Your task to perform on an android device: Search for "logitech g903" on target.com, select the first entry, add it to the cart, then select checkout. Image 0: 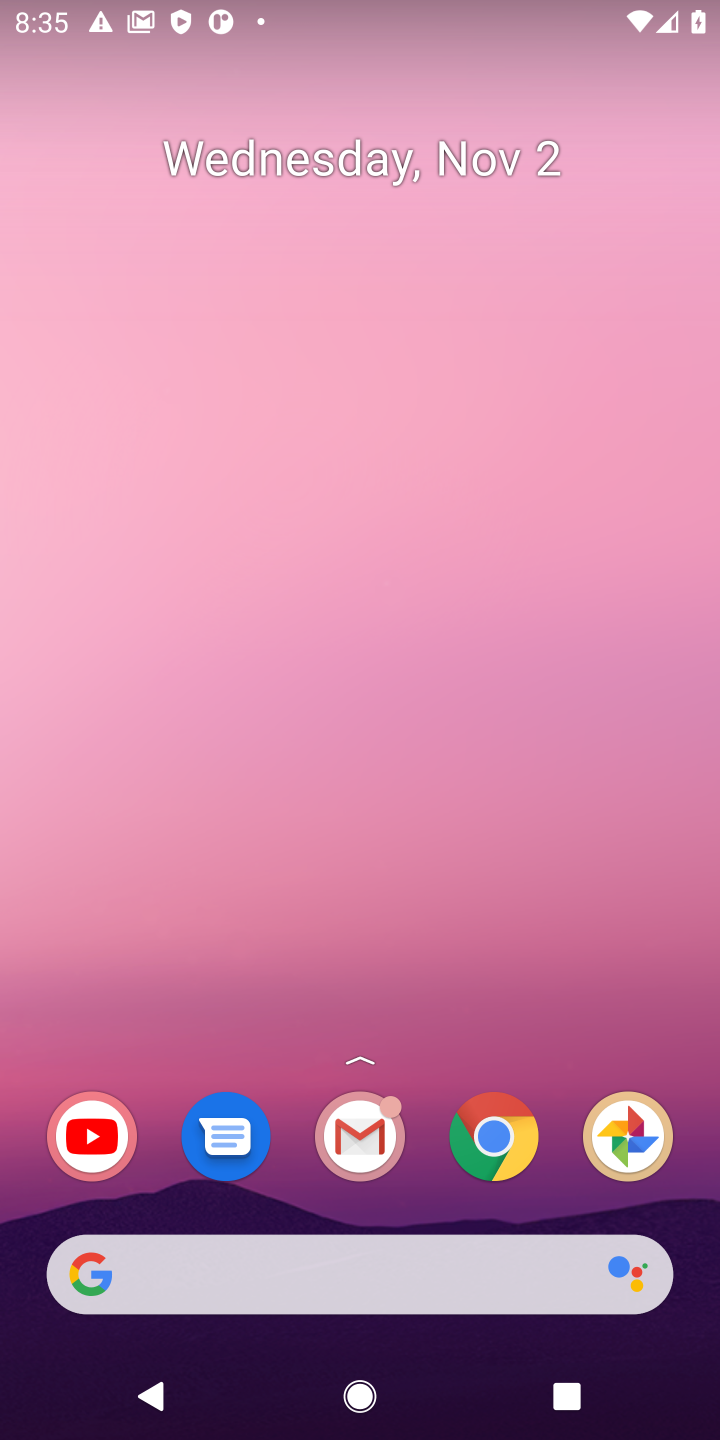
Step 0: drag from (315, 550) to (104, 35)
Your task to perform on an android device: Search for "logitech g903" on target.com, select the first entry, add it to the cart, then select checkout. Image 1: 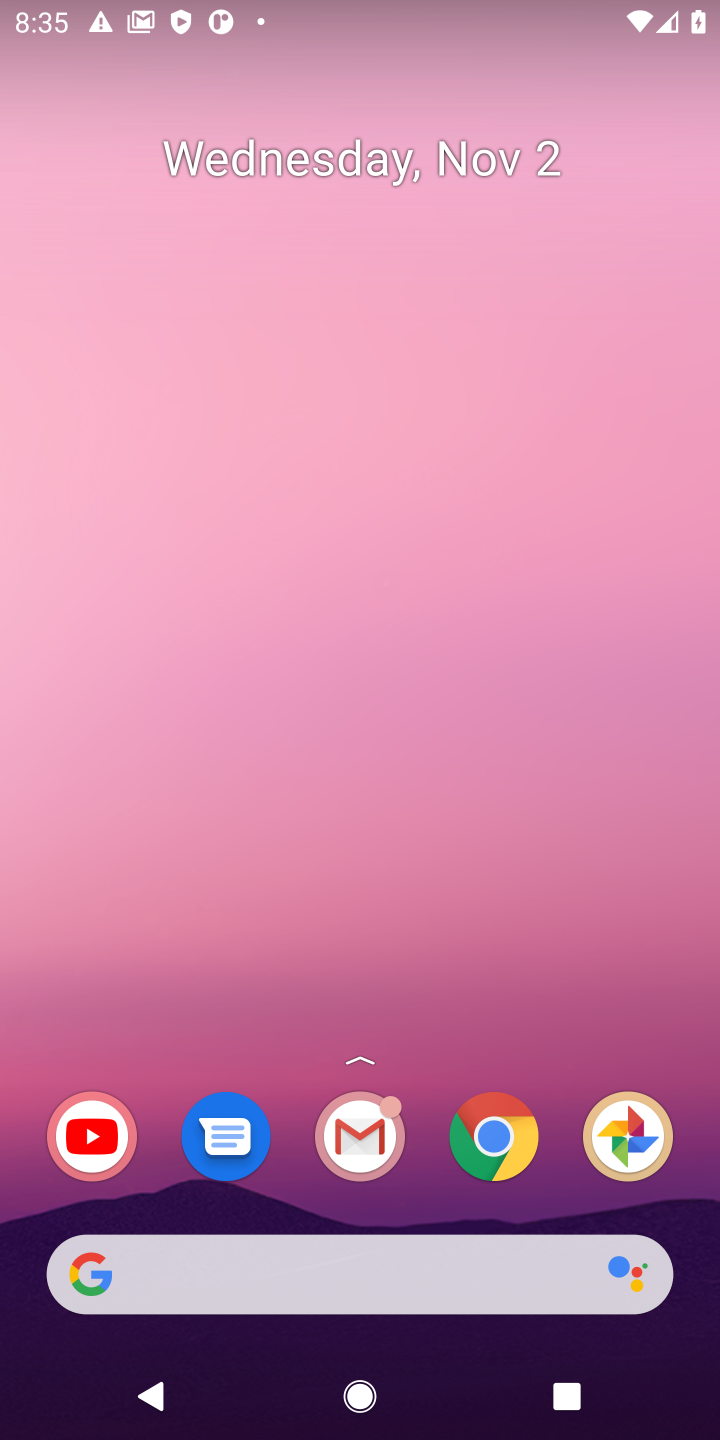
Step 1: drag from (251, 844) to (255, 339)
Your task to perform on an android device: Search for "logitech g903" on target.com, select the first entry, add it to the cart, then select checkout. Image 2: 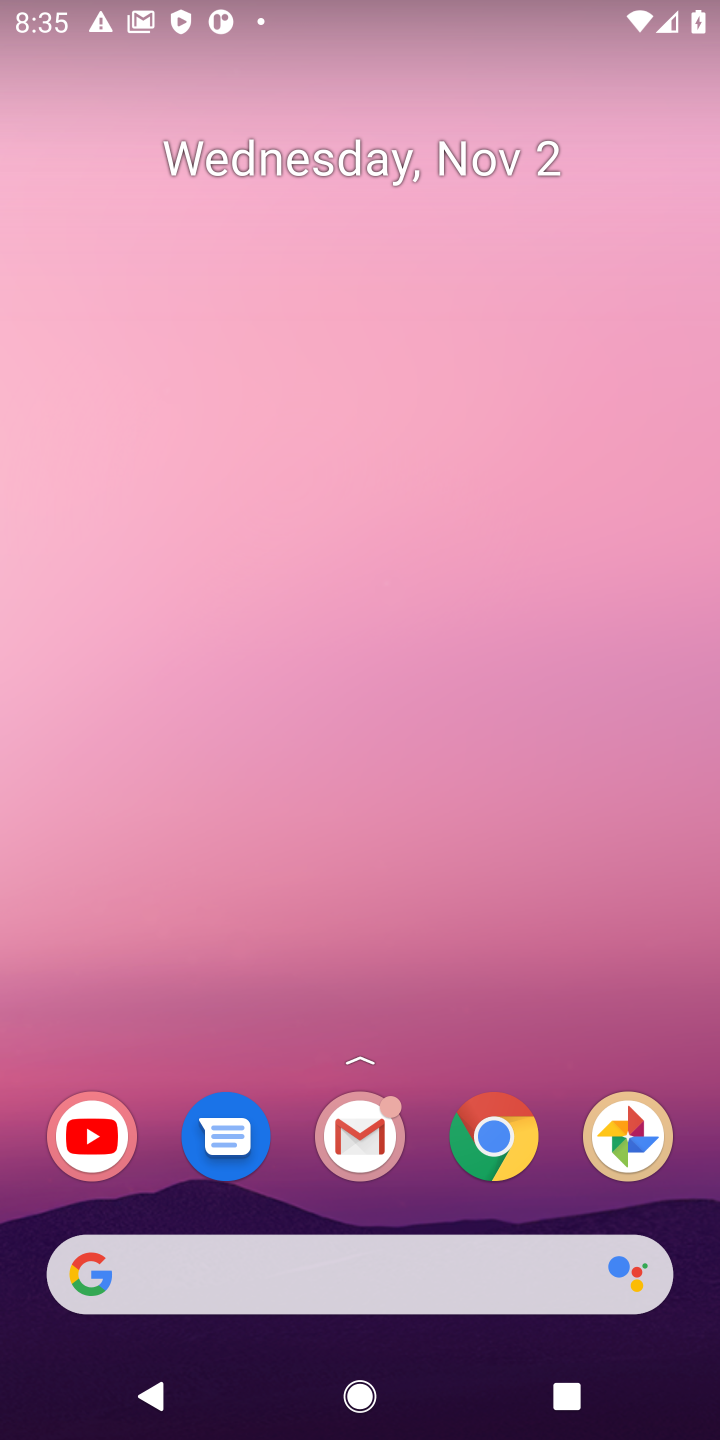
Step 2: drag from (310, 1023) to (308, 750)
Your task to perform on an android device: Search for "logitech g903" on target.com, select the first entry, add it to the cart, then select checkout. Image 3: 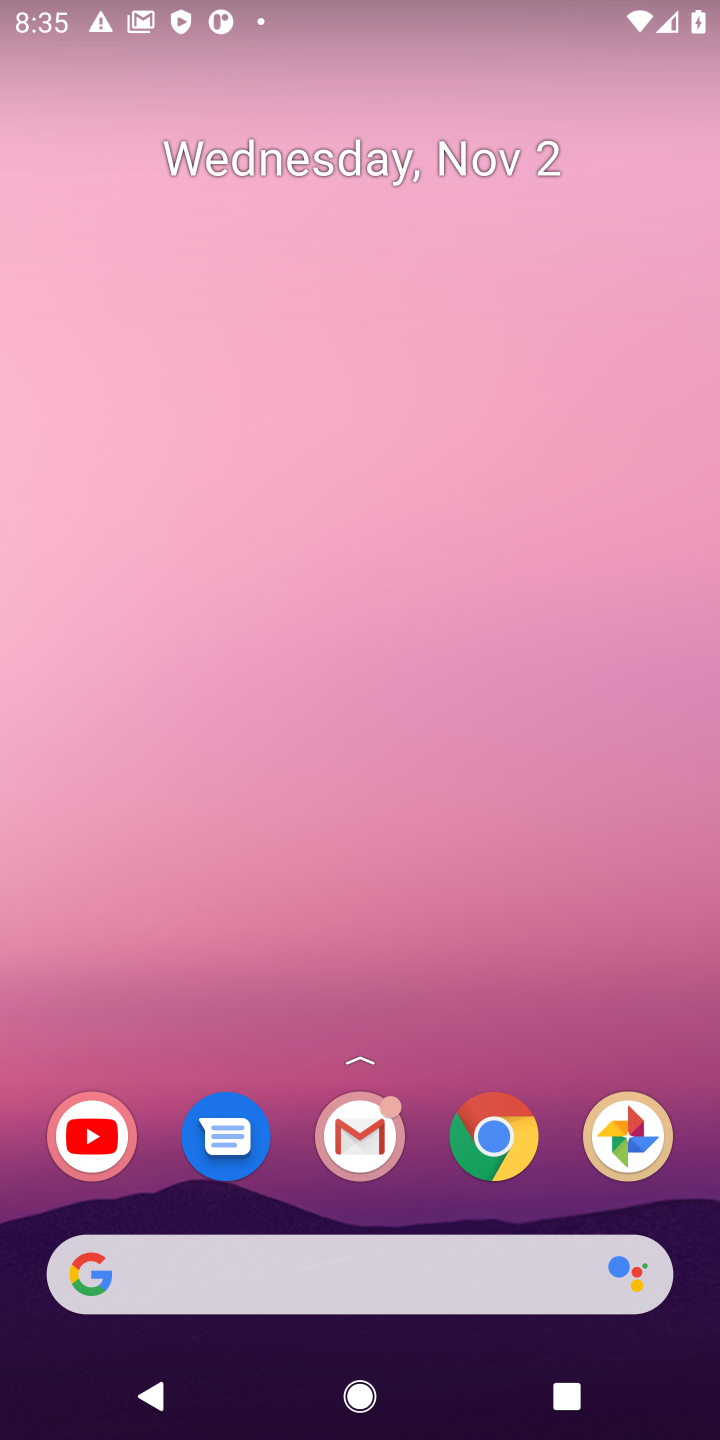
Step 3: drag from (317, 1327) to (540, 4)
Your task to perform on an android device: Search for "logitech g903" on target.com, select the first entry, add it to the cart, then select checkout. Image 4: 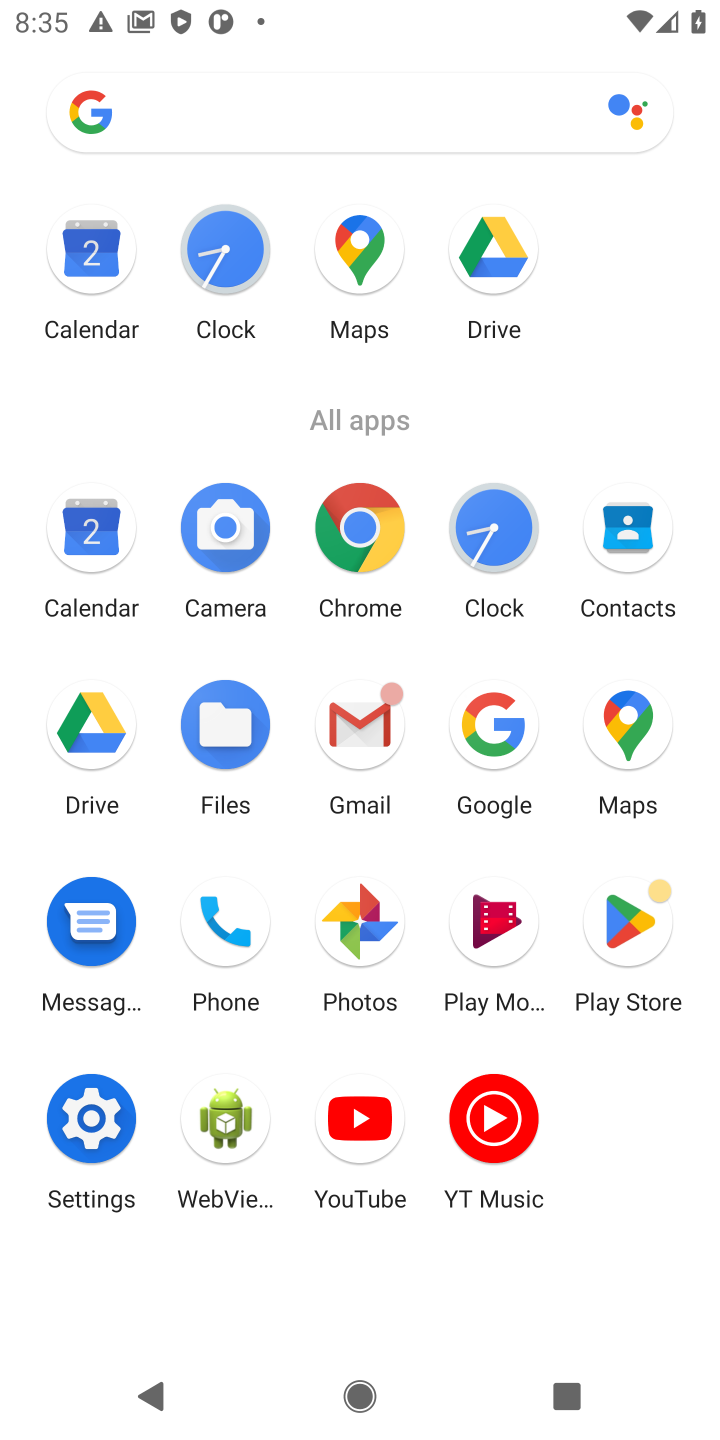
Step 4: click (490, 733)
Your task to perform on an android device: Search for "logitech g903" on target.com, select the first entry, add it to the cart, then select checkout. Image 5: 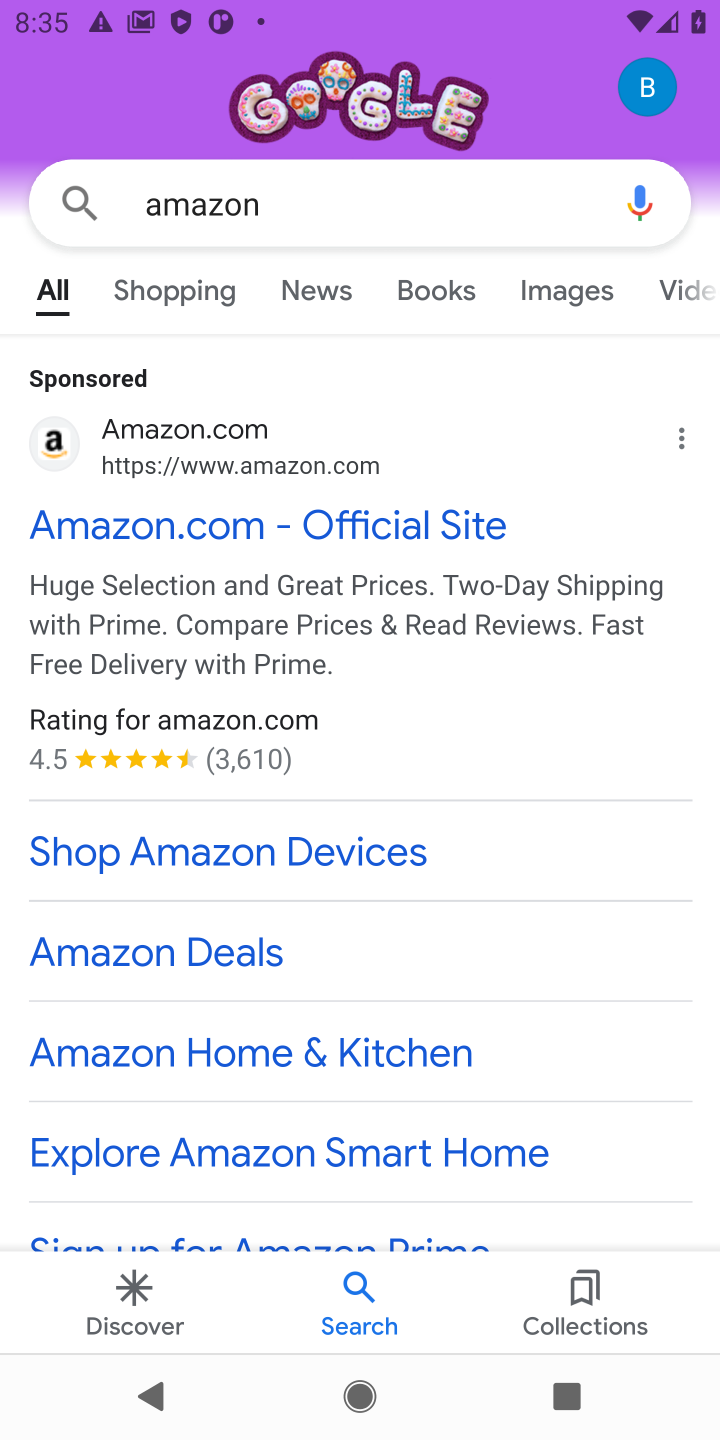
Step 5: click (251, 166)
Your task to perform on an android device: Search for "logitech g903" on target.com, select the first entry, add it to the cart, then select checkout. Image 6: 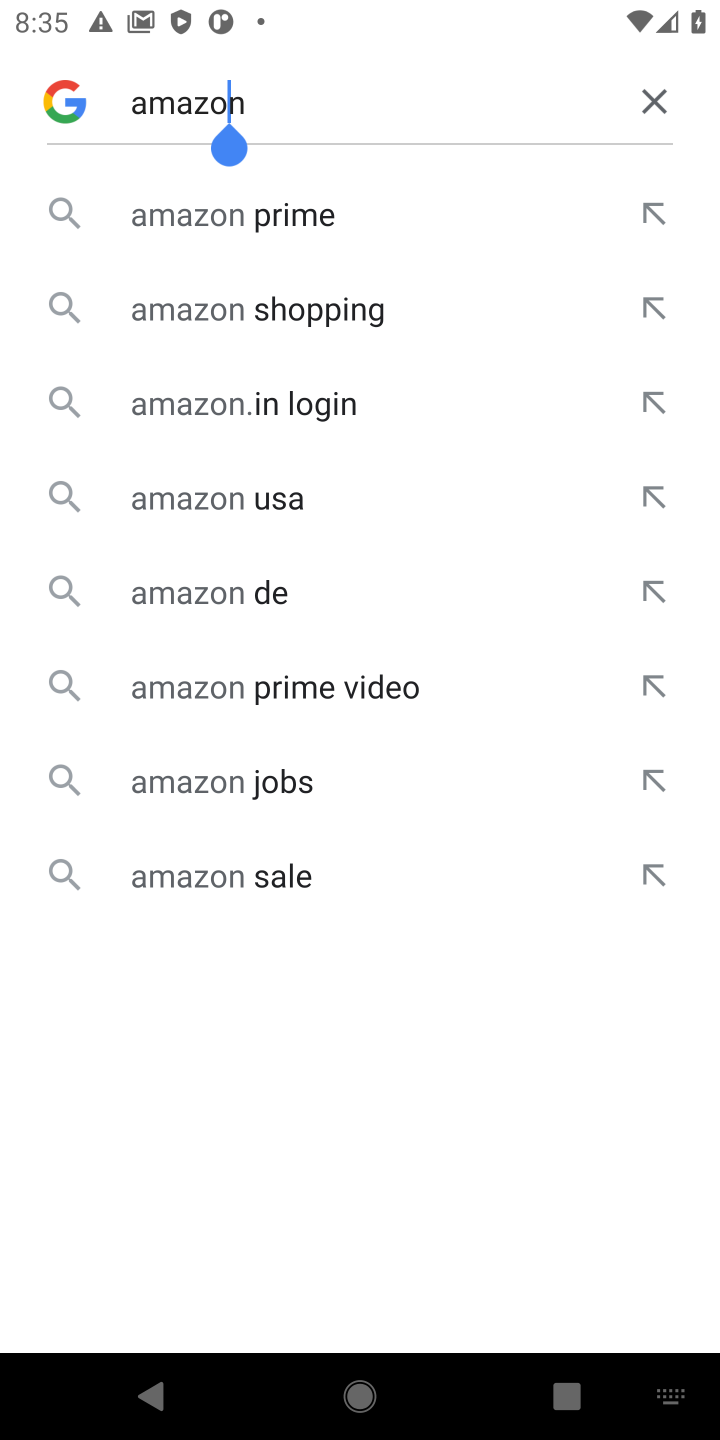
Step 6: click (670, 104)
Your task to perform on an android device: Search for "logitech g903" on target.com, select the first entry, add it to the cart, then select checkout. Image 7: 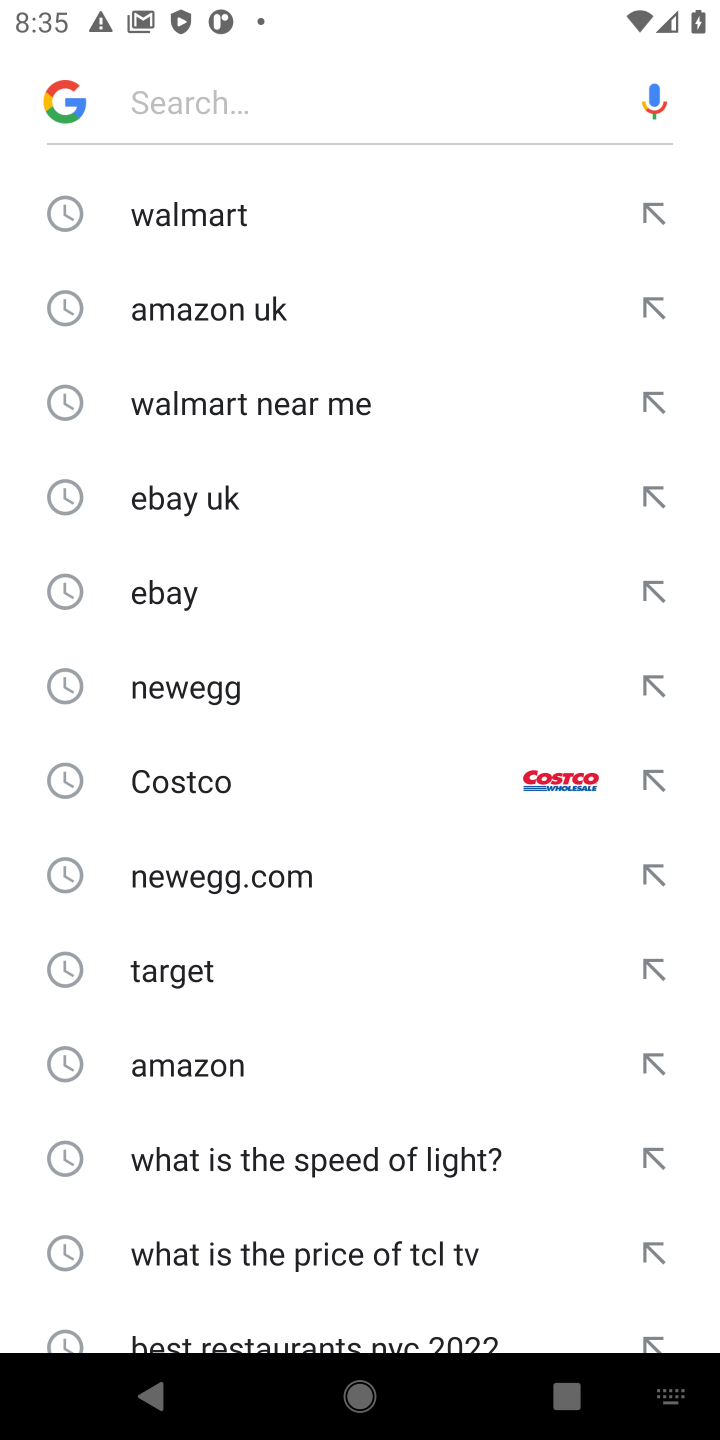
Step 7: click (336, 102)
Your task to perform on an android device: Search for "logitech g903" on target.com, select the first entry, add it to the cart, then select checkout. Image 8: 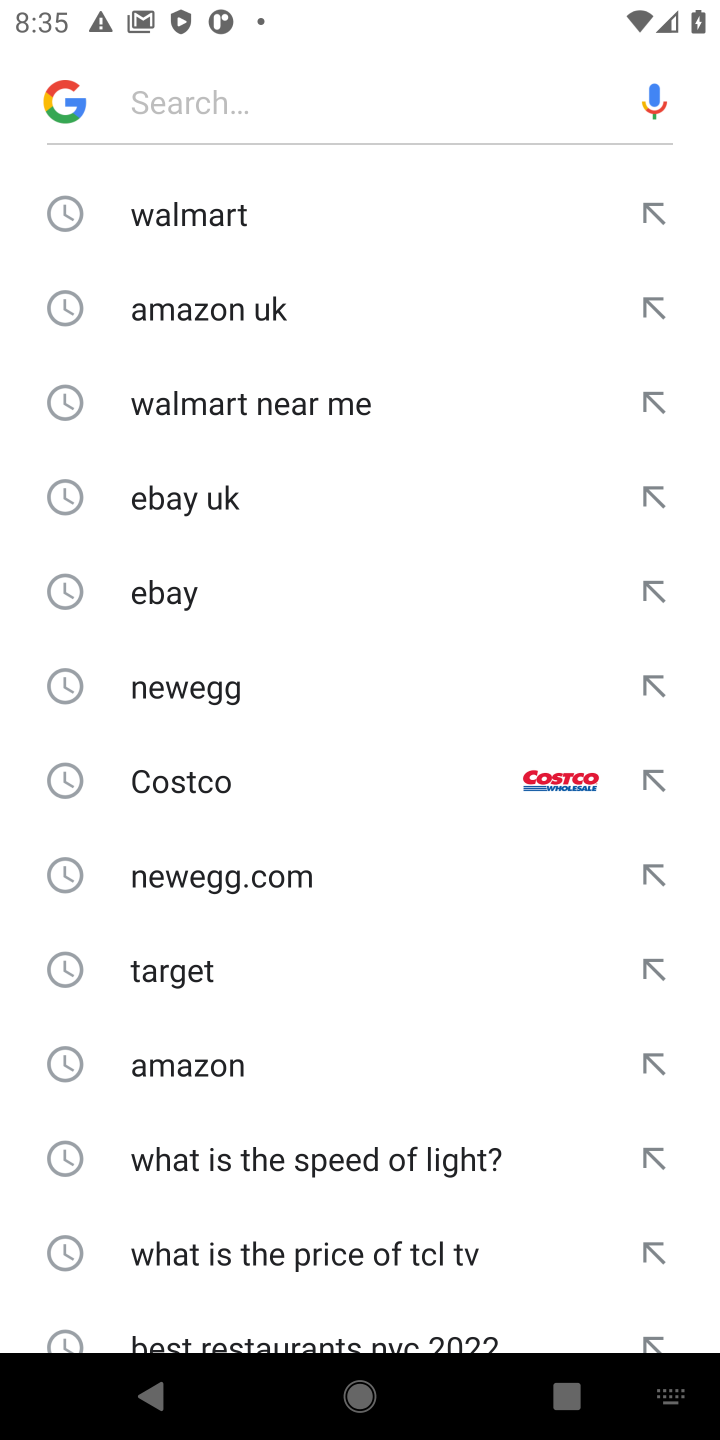
Step 8: type "target.com "
Your task to perform on an android device: Search for "logitech g903" on target.com, select the first entry, add it to the cart, then select checkout. Image 9: 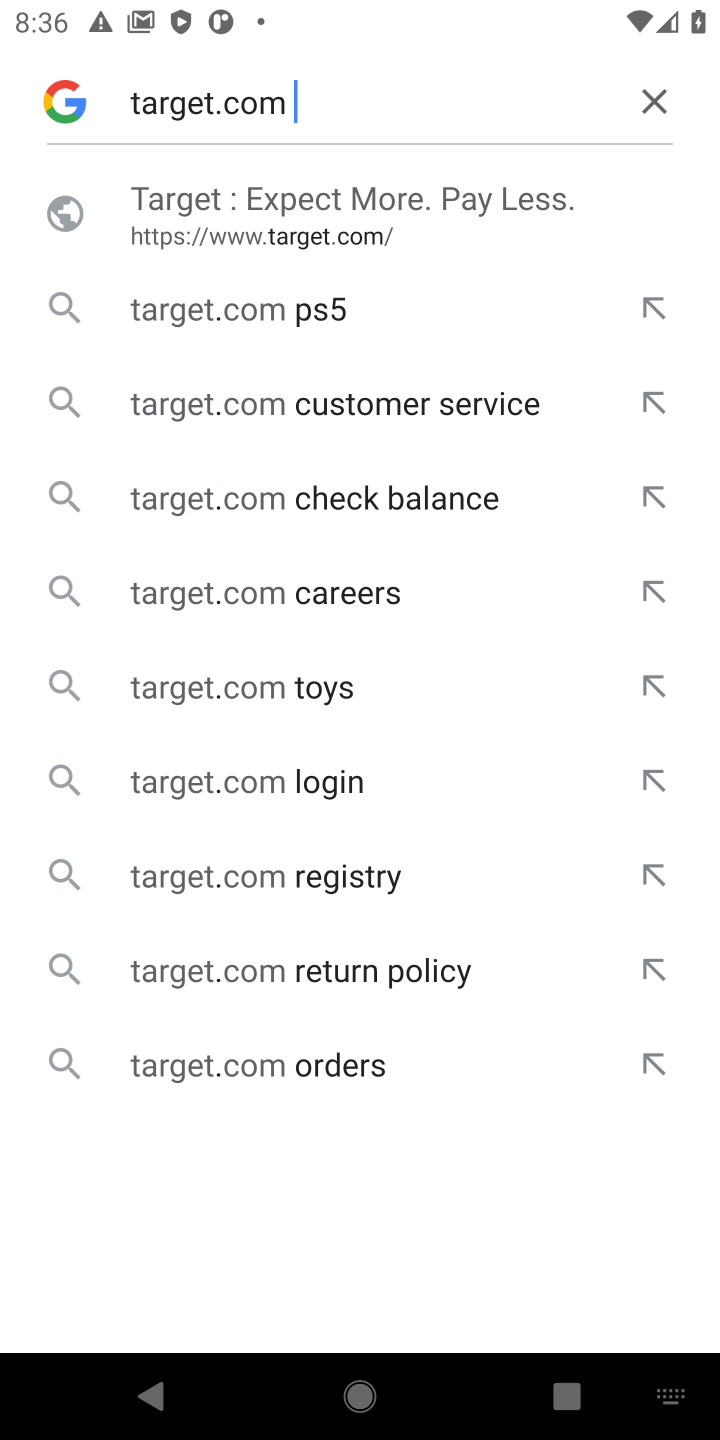
Step 9: click (355, 246)
Your task to perform on an android device: Search for "logitech g903" on target.com, select the first entry, add it to the cart, then select checkout. Image 10: 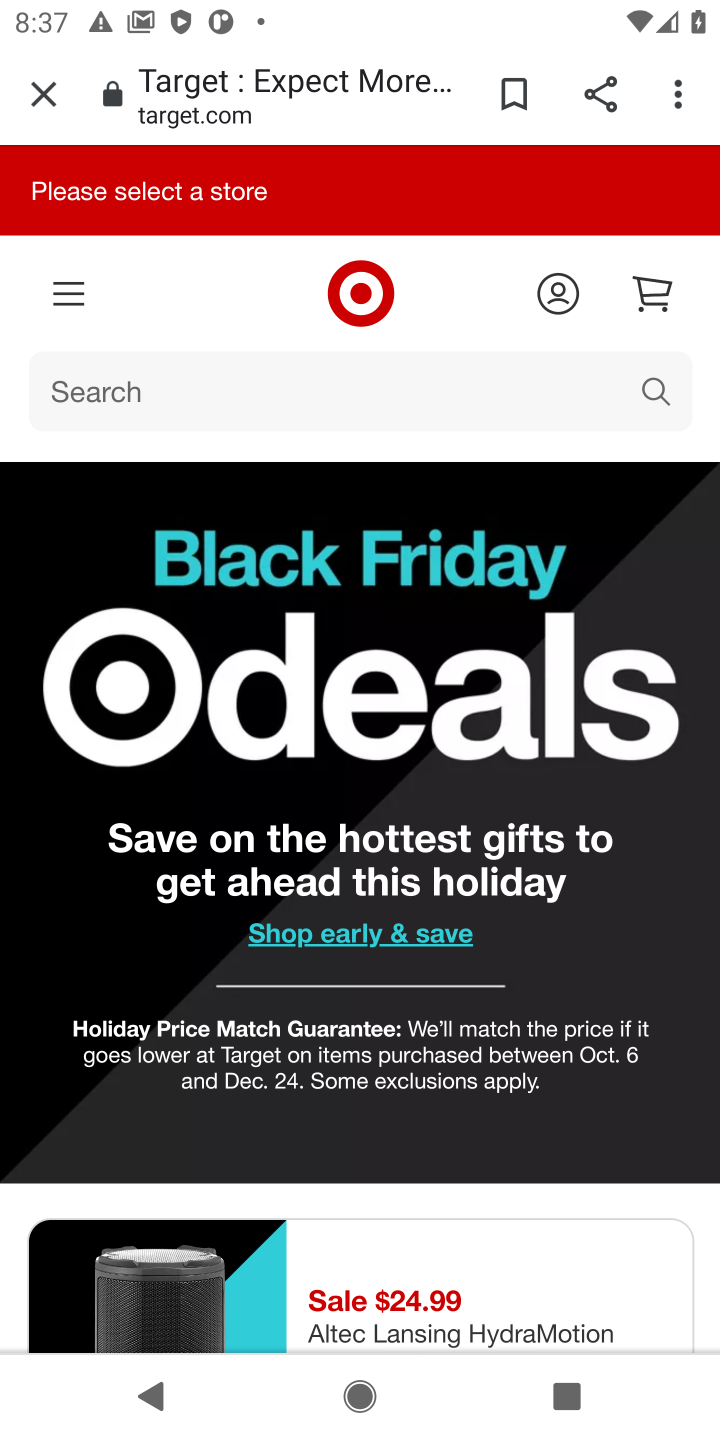
Step 10: click (217, 374)
Your task to perform on an android device: Search for "logitech g903" on target.com, select the first entry, add it to the cart, then select checkout. Image 11: 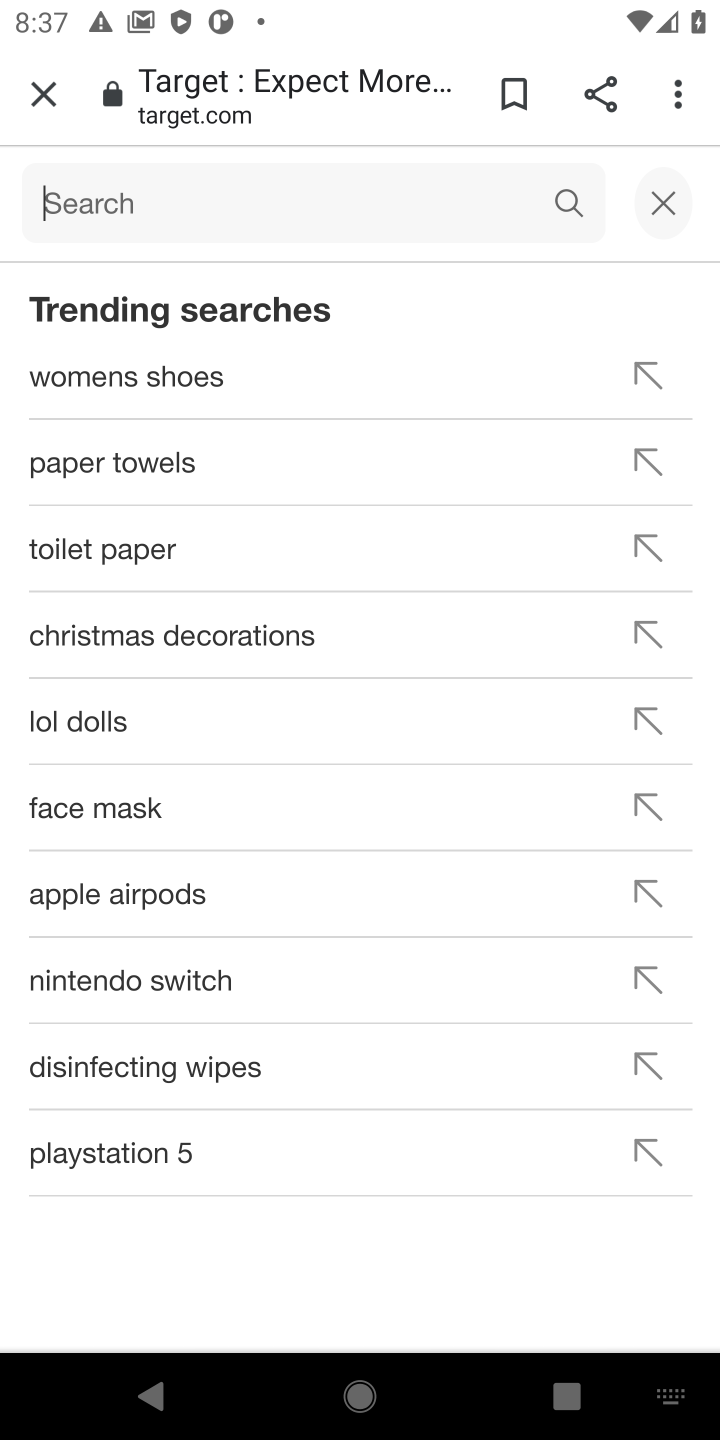
Step 11: type "logitech g903 "
Your task to perform on an android device: Search for "logitech g903" on target.com, select the first entry, add it to the cart, then select checkout. Image 12: 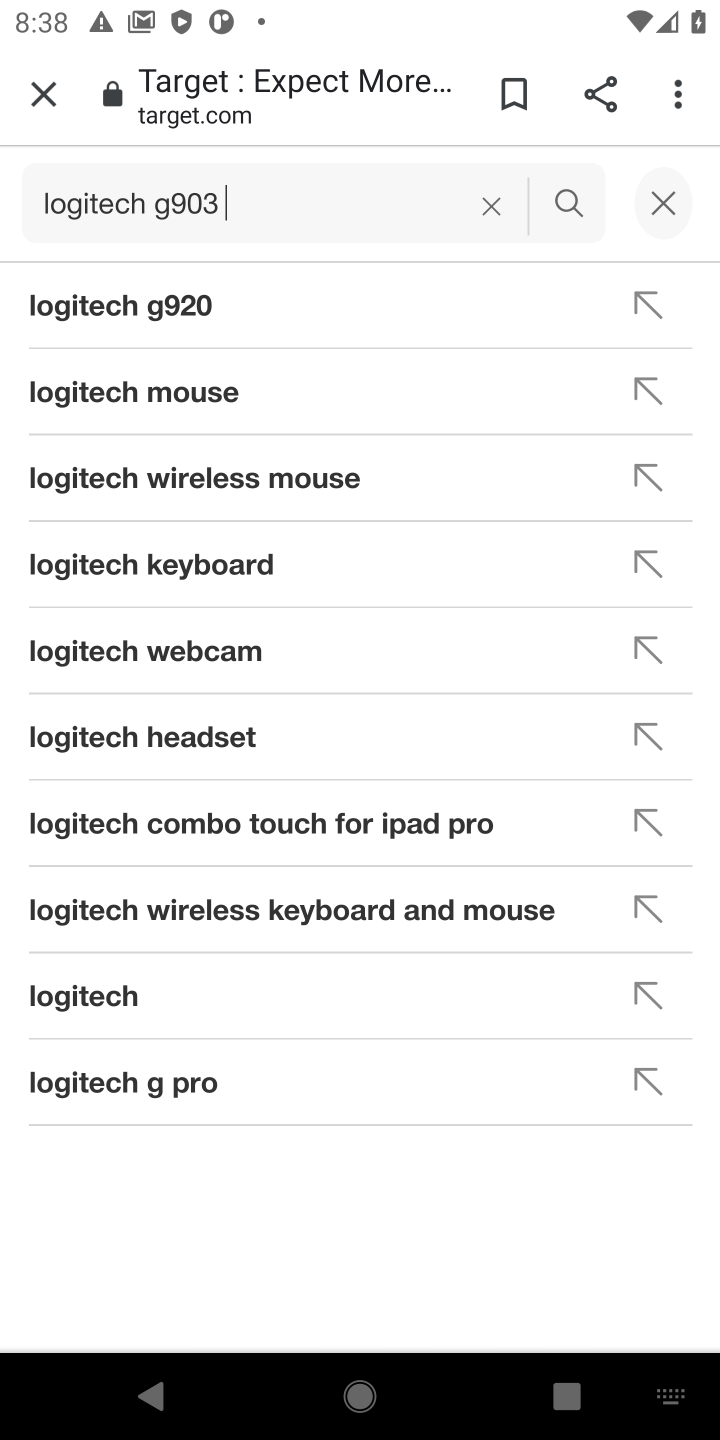
Step 12: click (191, 303)
Your task to perform on an android device: Search for "logitech g903" on target.com, select the first entry, add it to the cart, then select checkout. Image 13: 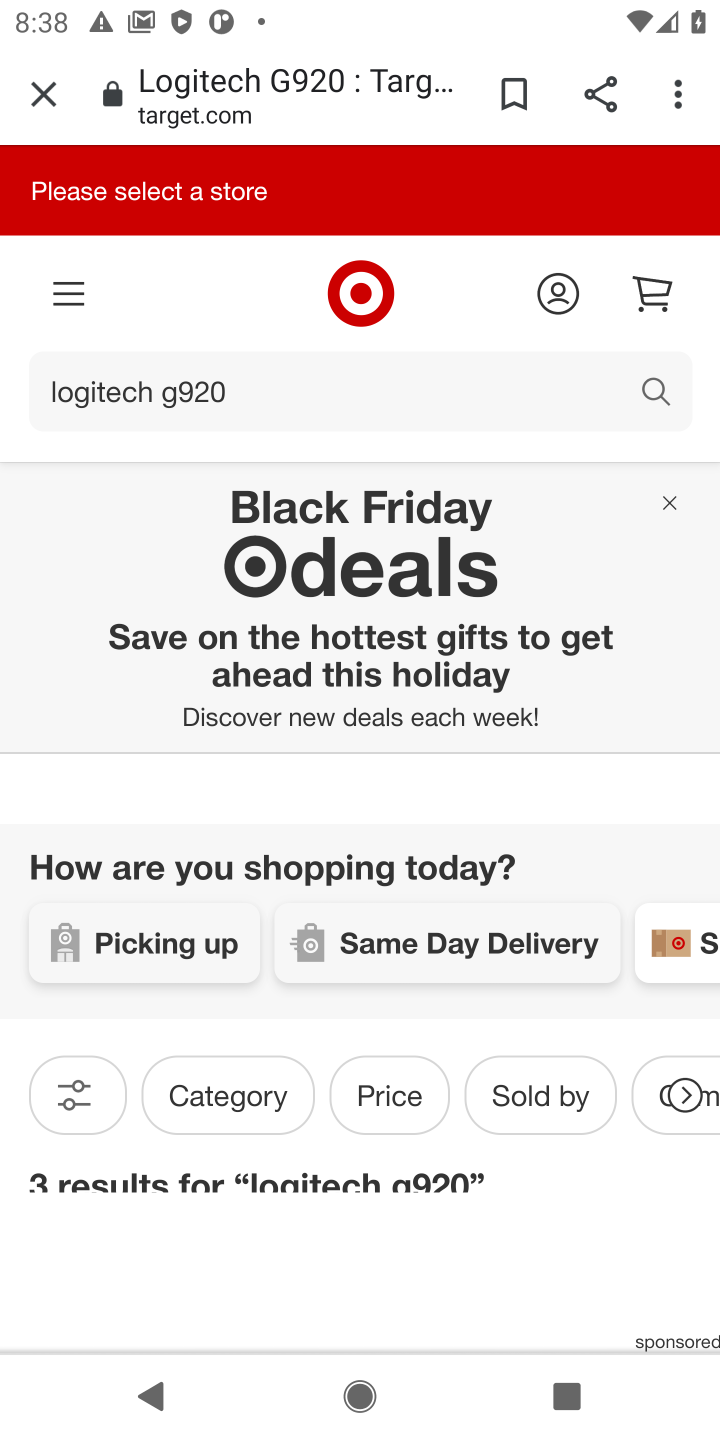
Step 13: drag from (330, 1141) to (345, 649)
Your task to perform on an android device: Search for "logitech g903" on target.com, select the first entry, add it to the cart, then select checkout. Image 14: 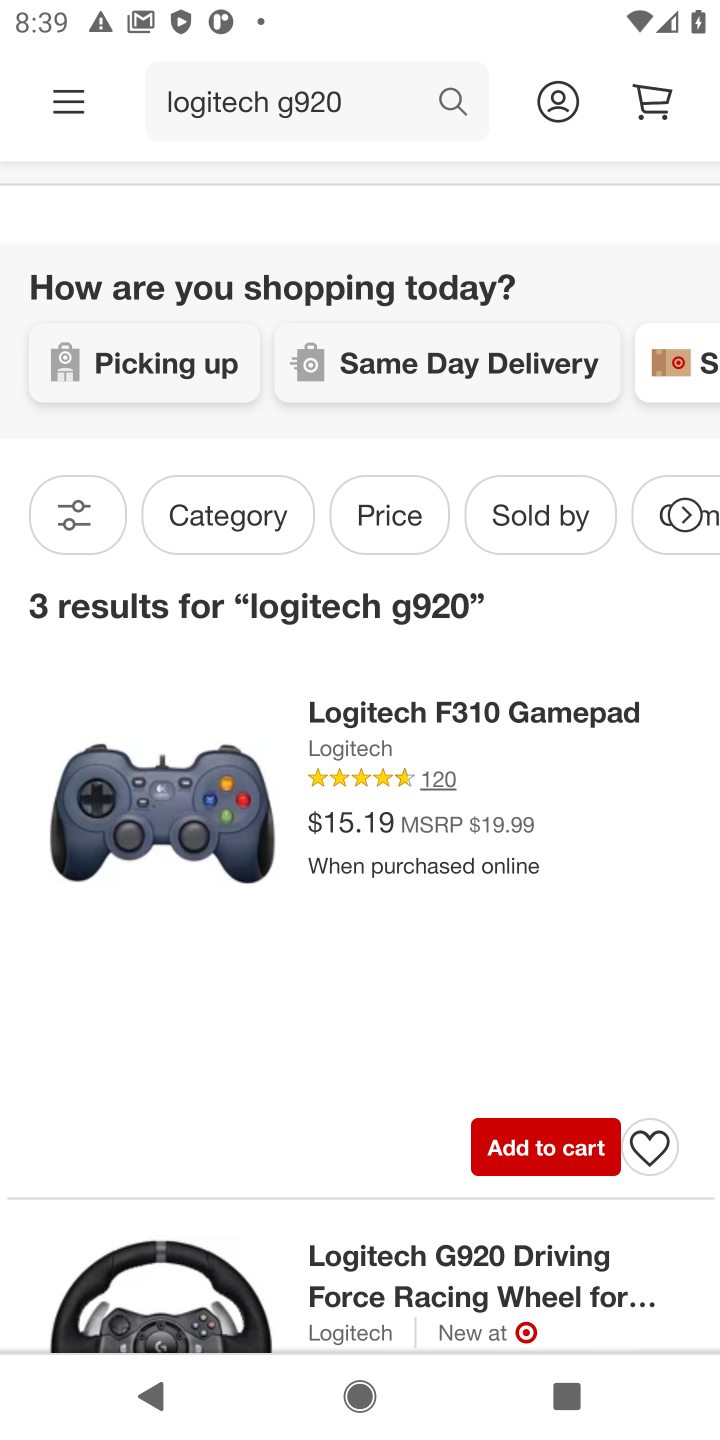
Step 14: drag from (389, 1277) to (458, 483)
Your task to perform on an android device: Search for "logitech g903" on target.com, select the first entry, add it to the cart, then select checkout. Image 15: 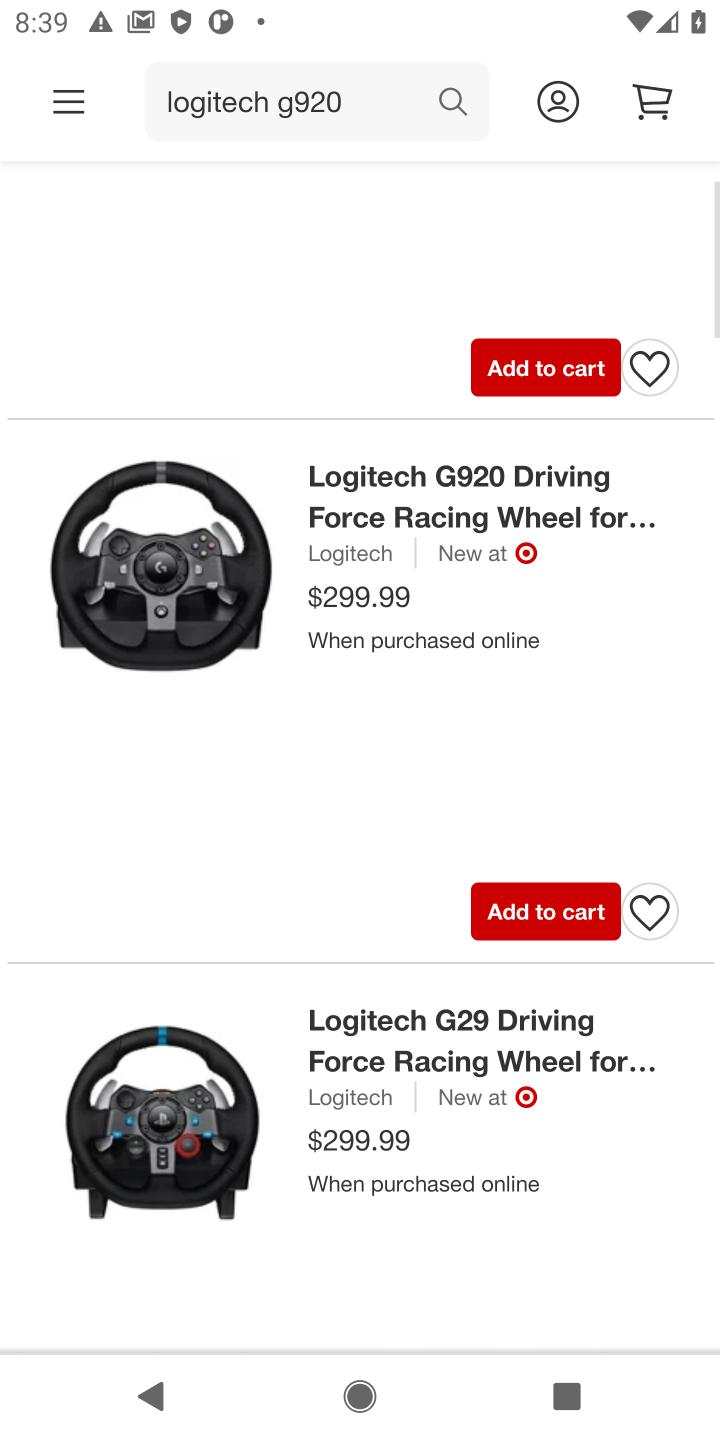
Step 15: drag from (397, 1201) to (434, 357)
Your task to perform on an android device: Search for "logitech g903" on target.com, select the first entry, add it to the cart, then select checkout. Image 16: 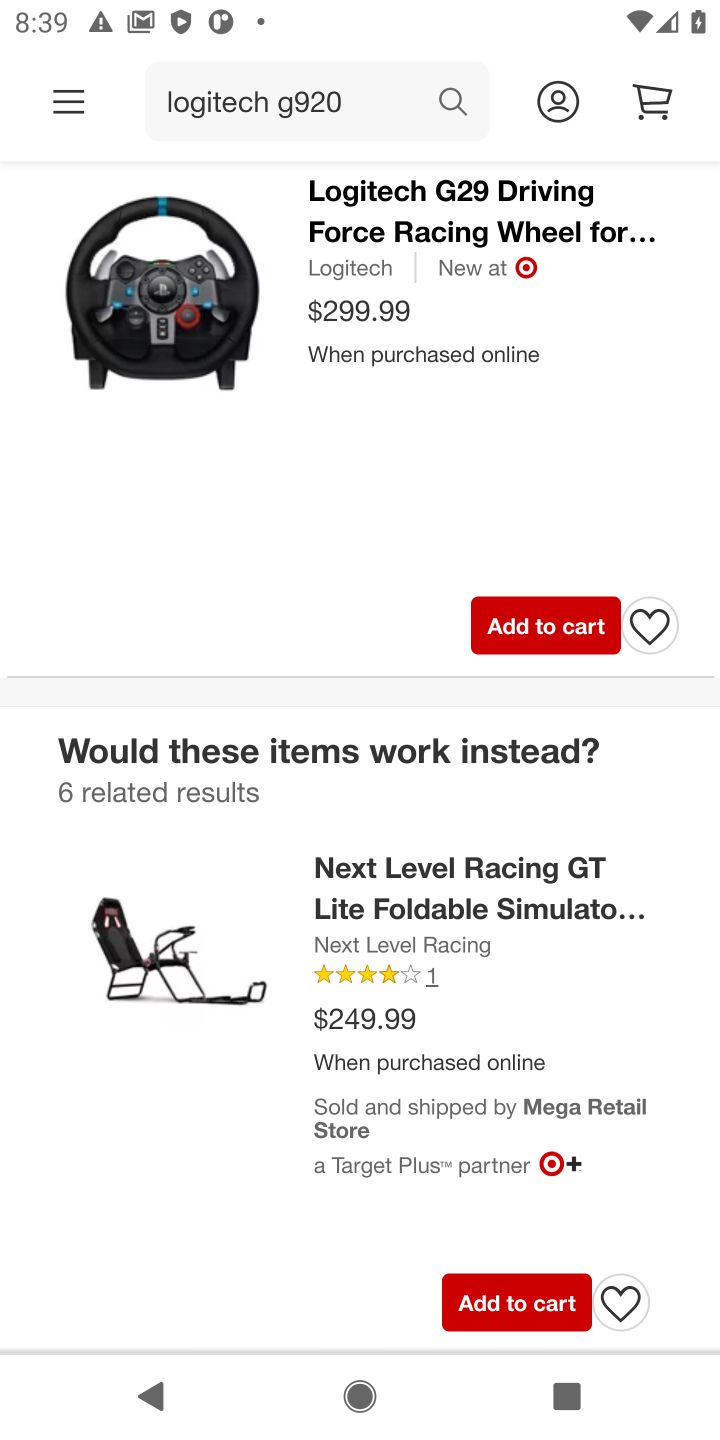
Step 16: drag from (401, 1264) to (446, 231)
Your task to perform on an android device: Search for "logitech g903" on target.com, select the first entry, add it to the cart, then select checkout. Image 17: 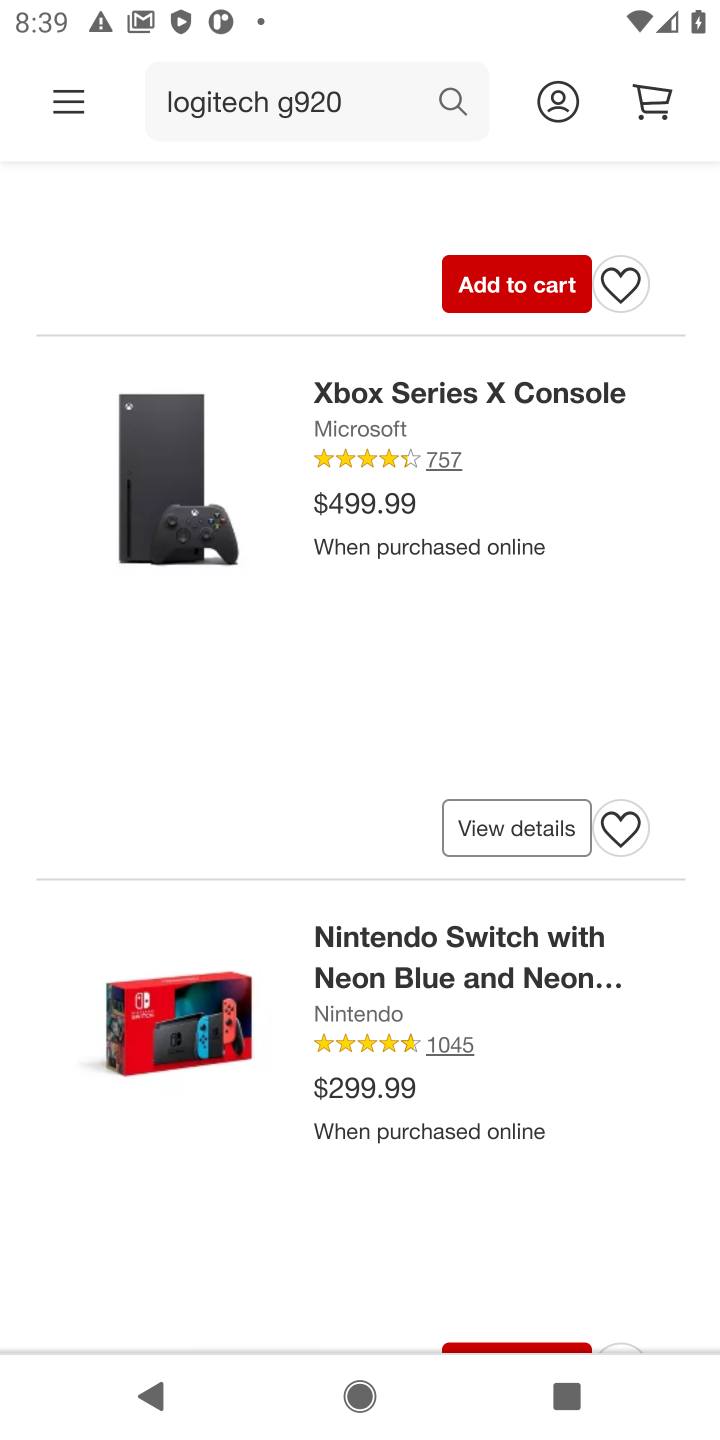
Step 17: drag from (371, 1056) to (311, 265)
Your task to perform on an android device: Search for "logitech g903" on target.com, select the first entry, add it to the cart, then select checkout. Image 18: 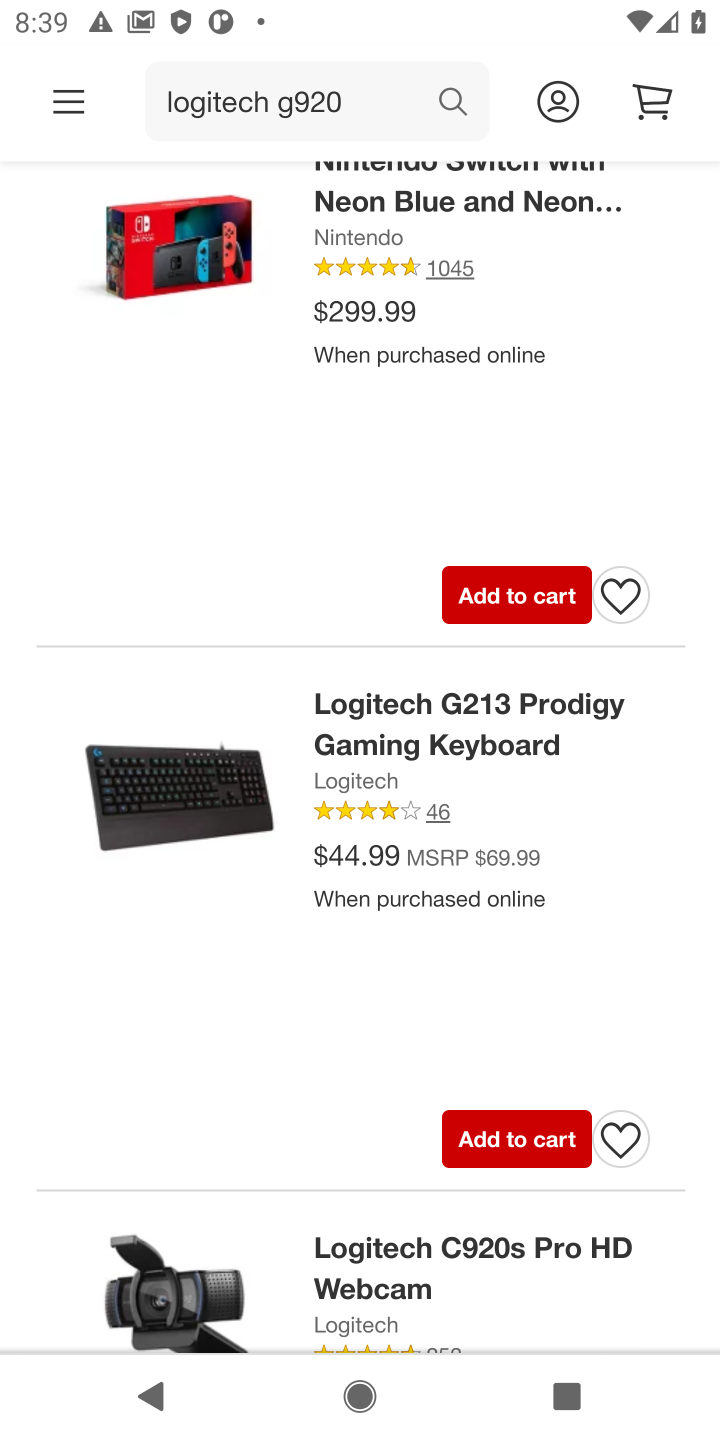
Step 18: press back button
Your task to perform on an android device: Search for "logitech g903" on target.com, select the first entry, add it to the cart, then select checkout. Image 19: 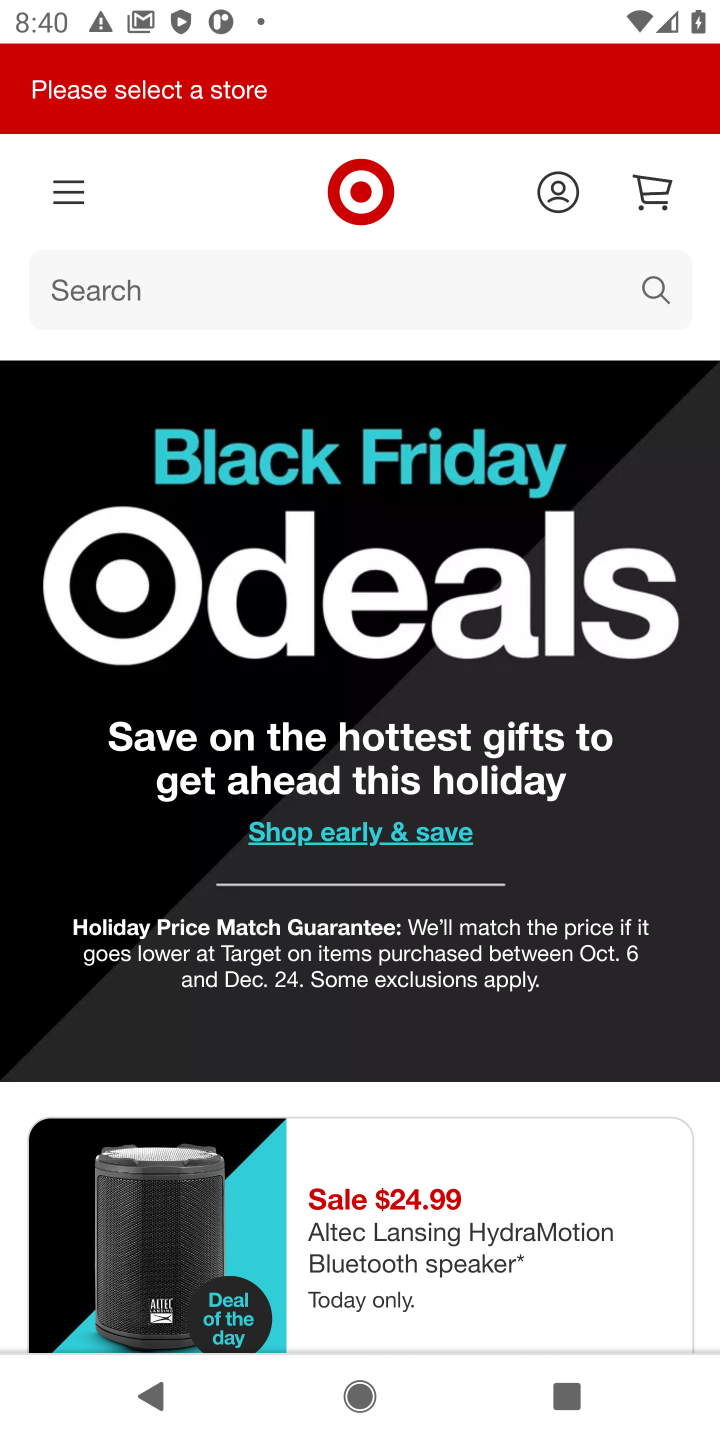
Step 19: click (279, 274)
Your task to perform on an android device: Search for "logitech g903" on target.com, select the first entry, add it to the cart, then select checkout. Image 20: 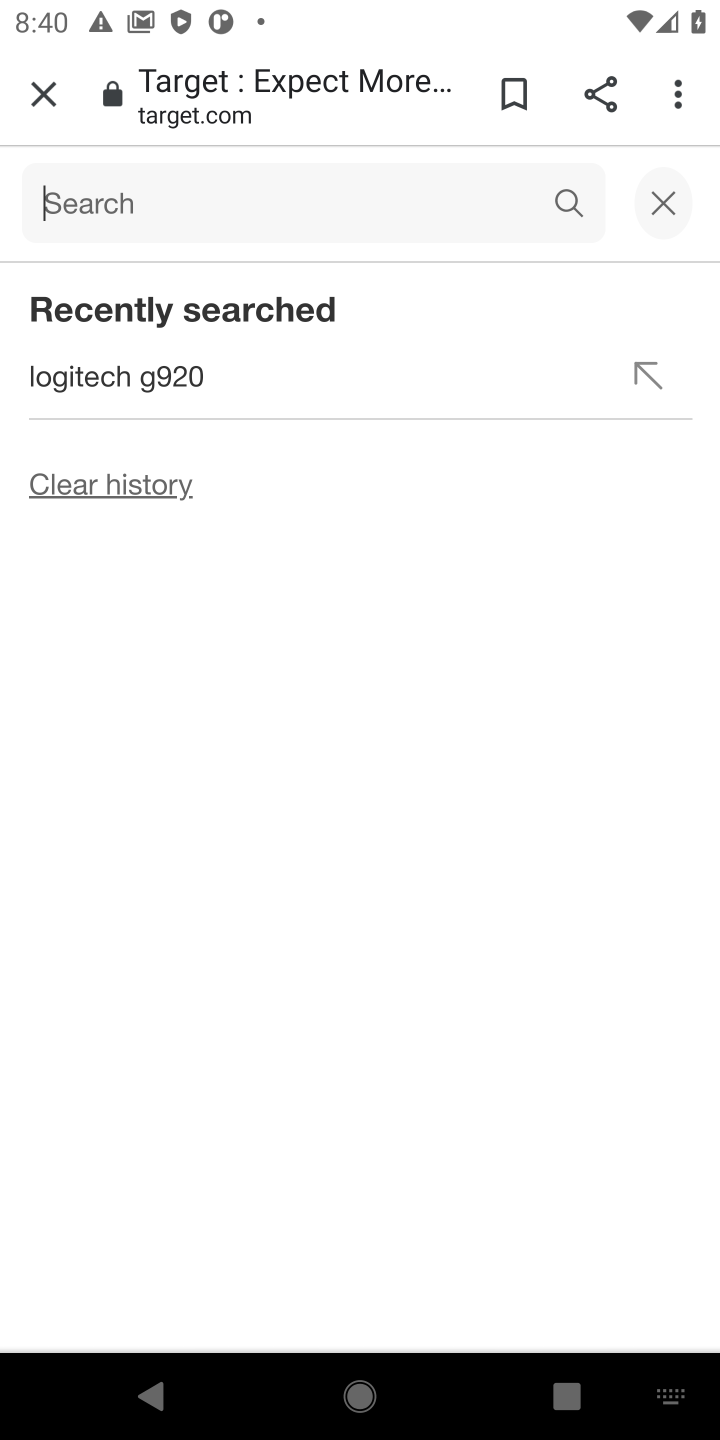
Step 20: type "logitech g903 "
Your task to perform on an android device: Search for "logitech g903" on target.com, select the first entry, add it to the cart, then select checkout. Image 21: 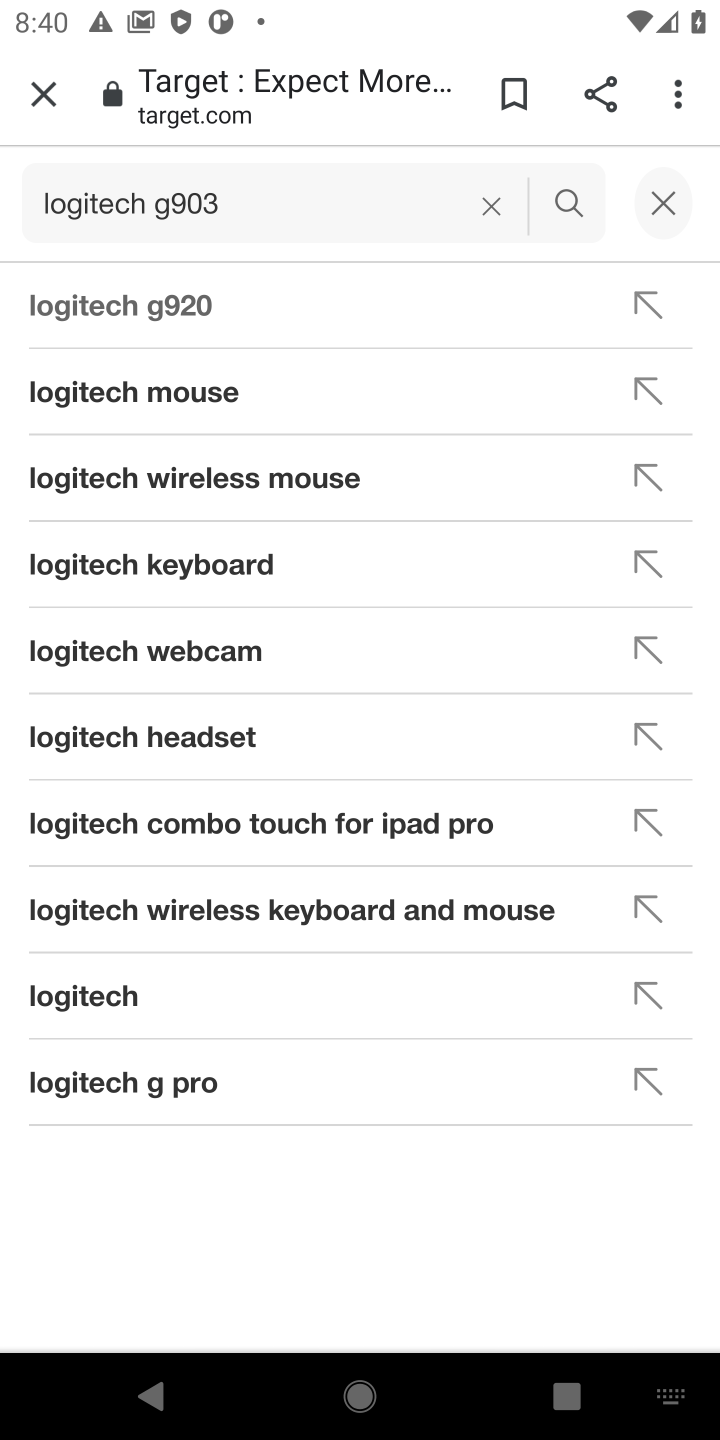
Step 21: click (180, 304)
Your task to perform on an android device: Search for "logitech g903" on target.com, select the first entry, add it to the cart, then select checkout. Image 22: 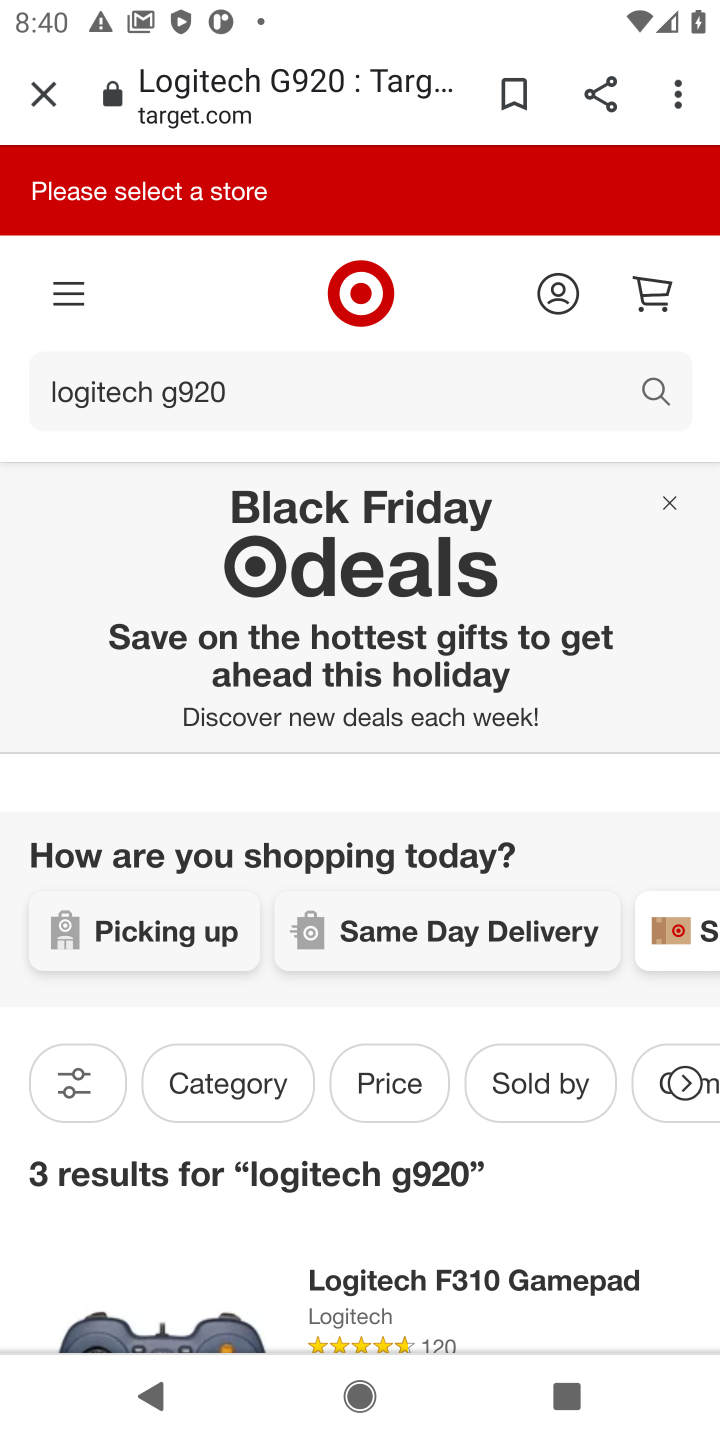
Step 22: drag from (260, 1273) to (319, 607)
Your task to perform on an android device: Search for "logitech g903" on target.com, select the first entry, add it to the cart, then select checkout. Image 23: 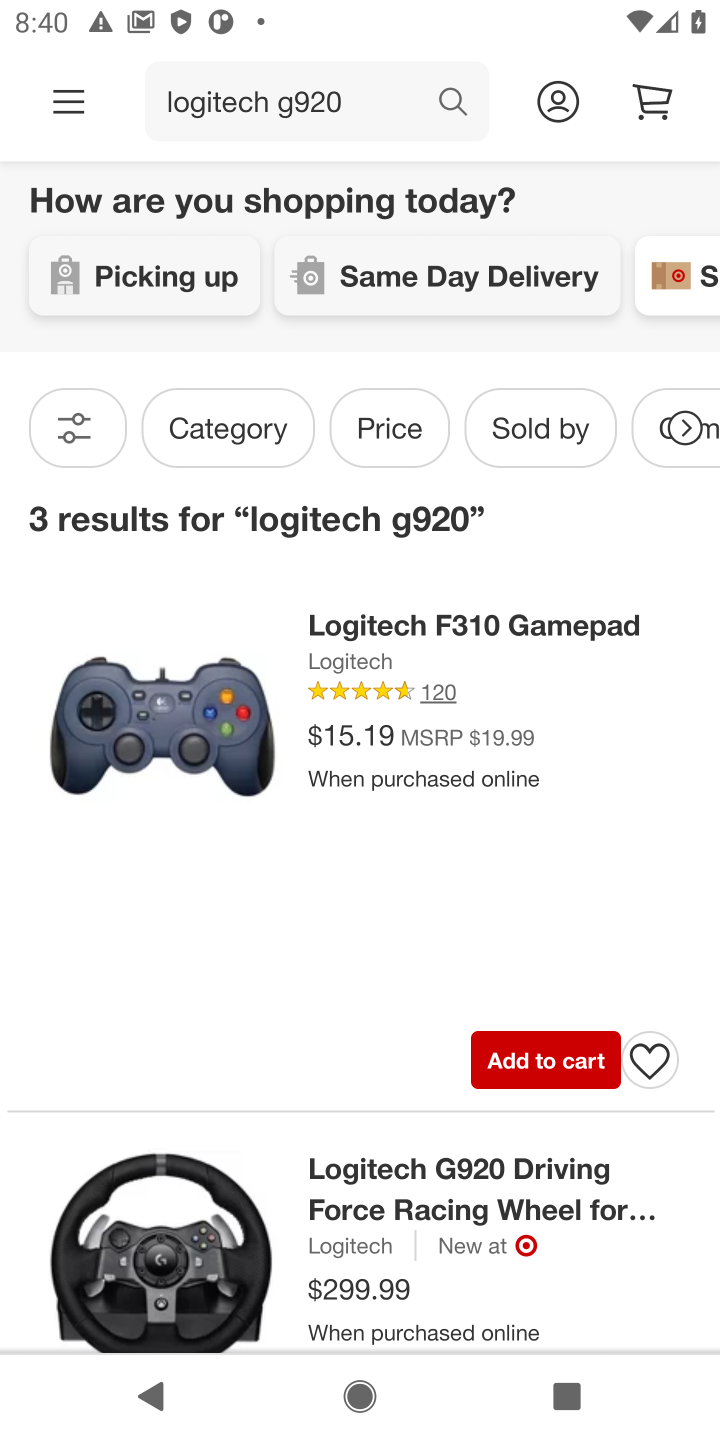
Step 23: click (521, 1057)
Your task to perform on an android device: Search for "logitech g903" on target.com, select the first entry, add it to the cart, then select checkout. Image 24: 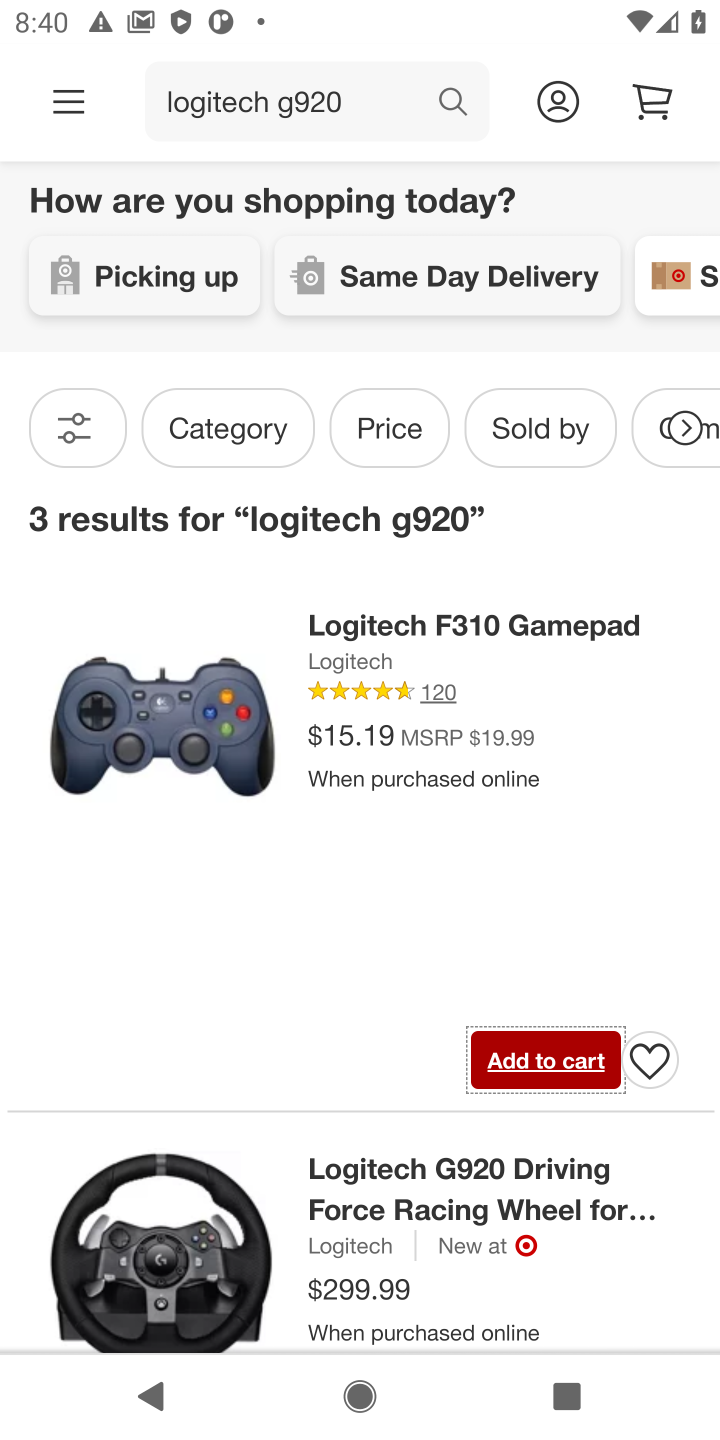
Step 24: click (531, 1041)
Your task to perform on an android device: Search for "logitech g903" on target.com, select the first entry, add it to the cart, then select checkout. Image 25: 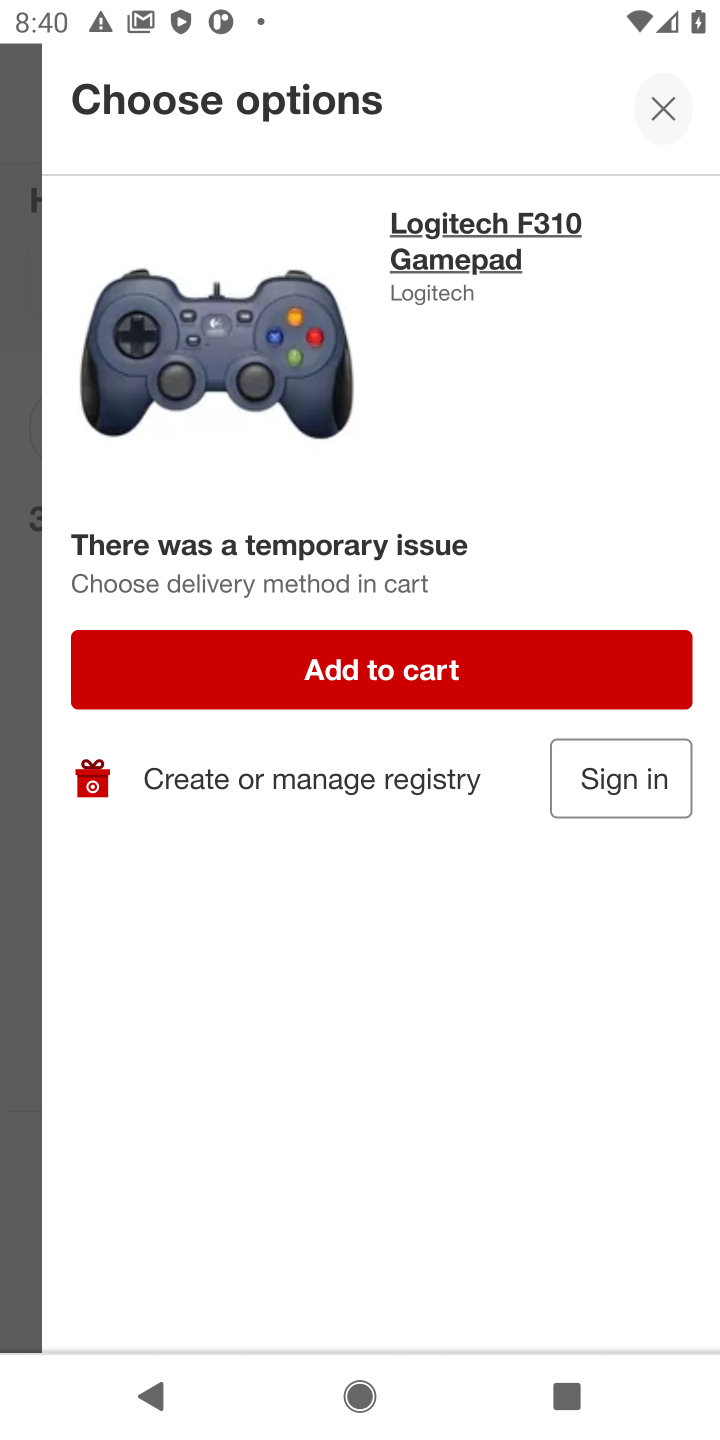
Step 25: click (412, 664)
Your task to perform on an android device: Search for "logitech g903" on target.com, select the first entry, add it to the cart, then select checkout. Image 26: 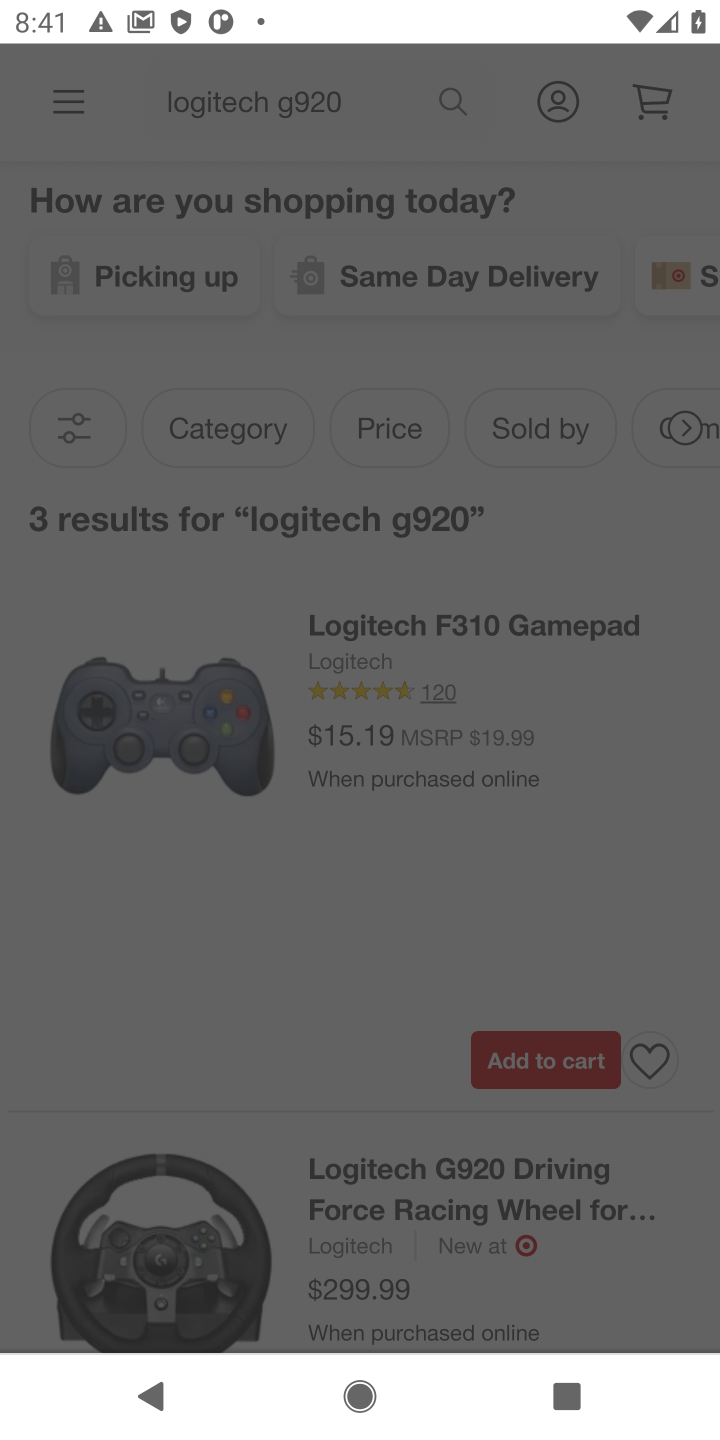
Step 26: task complete